Your task to perform on an android device: Is it going to rain tomorrow? Image 0: 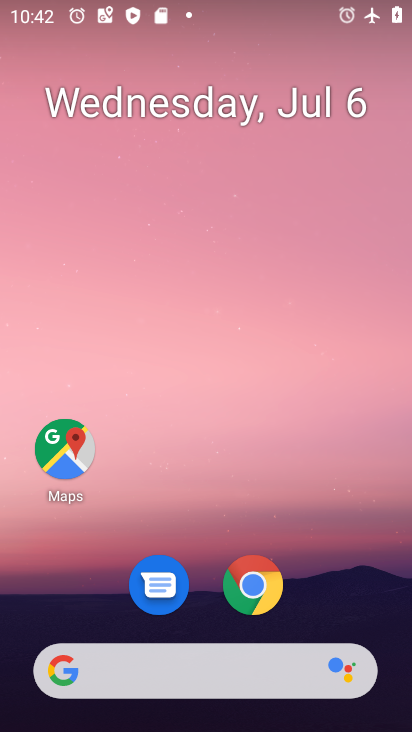
Step 0: click (188, 686)
Your task to perform on an android device: Is it going to rain tomorrow? Image 1: 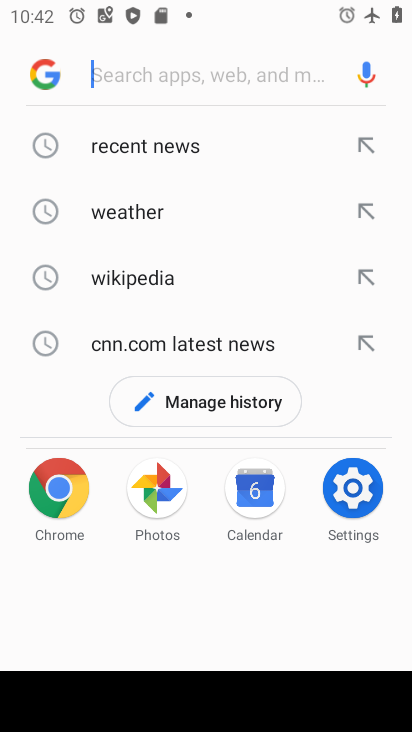
Step 1: click (139, 204)
Your task to perform on an android device: Is it going to rain tomorrow? Image 2: 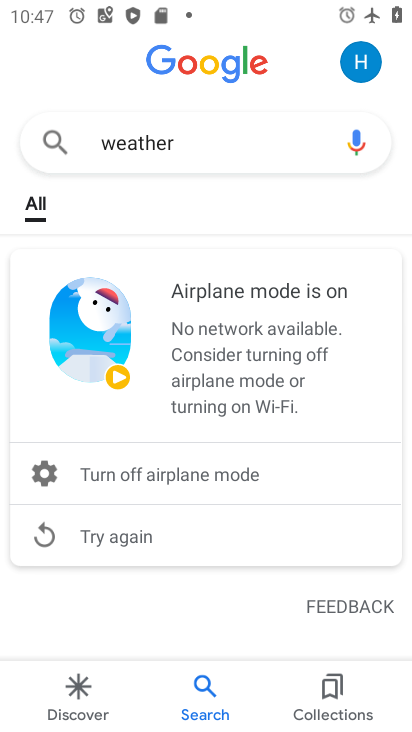
Step 2: task complete